Your task to perform on an android device: Search for vegetarian restaurants on Maps Image 0: 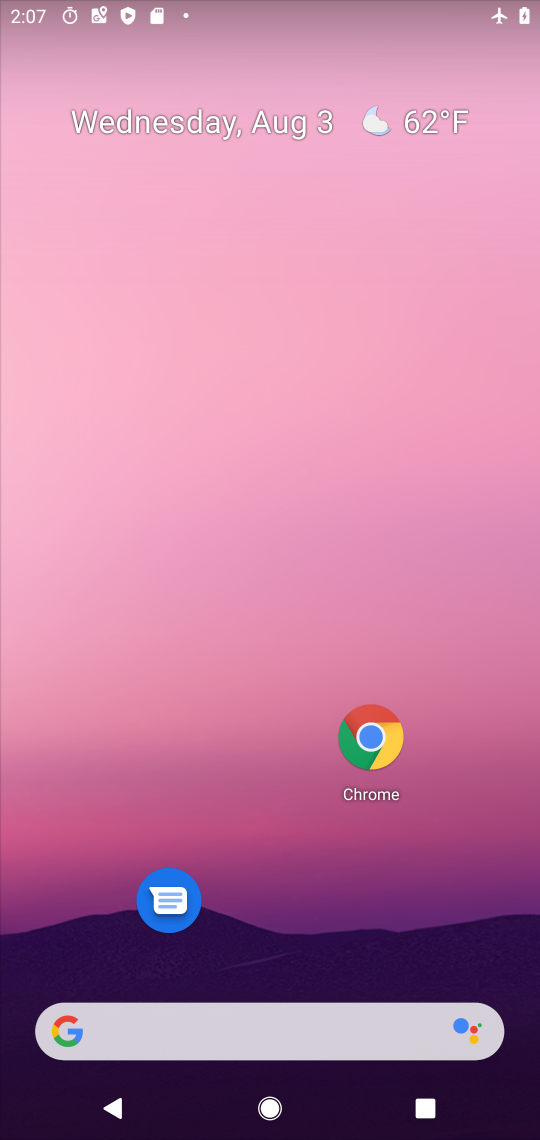
Step 0: drag from (250, 915) to (245, 152)
Your task to perform on an android device: Search for vegetarian restaurants on Maps Image 1: 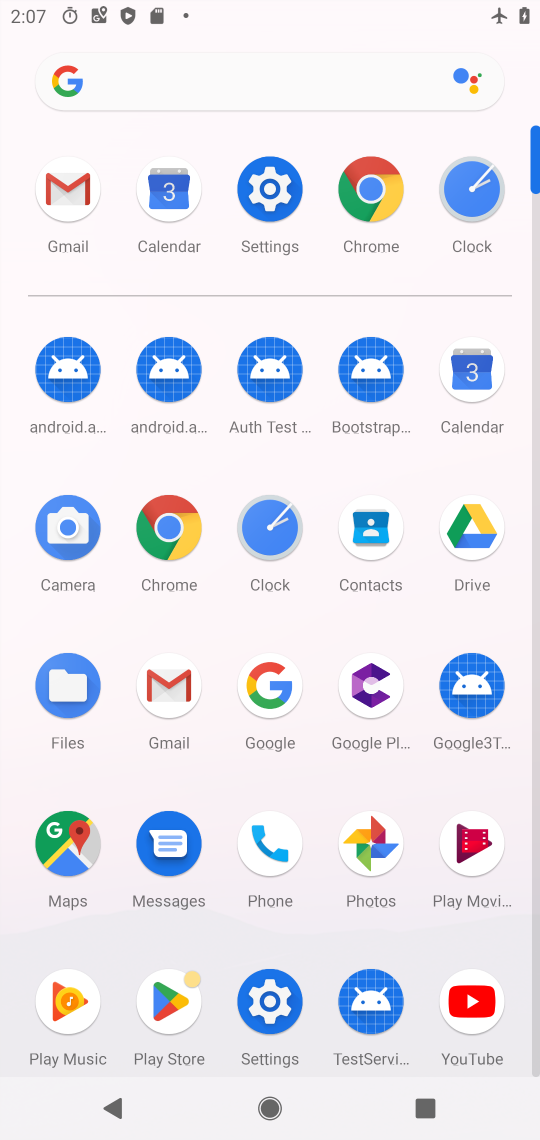
Step 1: click (65, 839)
Your task to perform on an android device: Search for vegetarian restaurants on Maps Image 2: 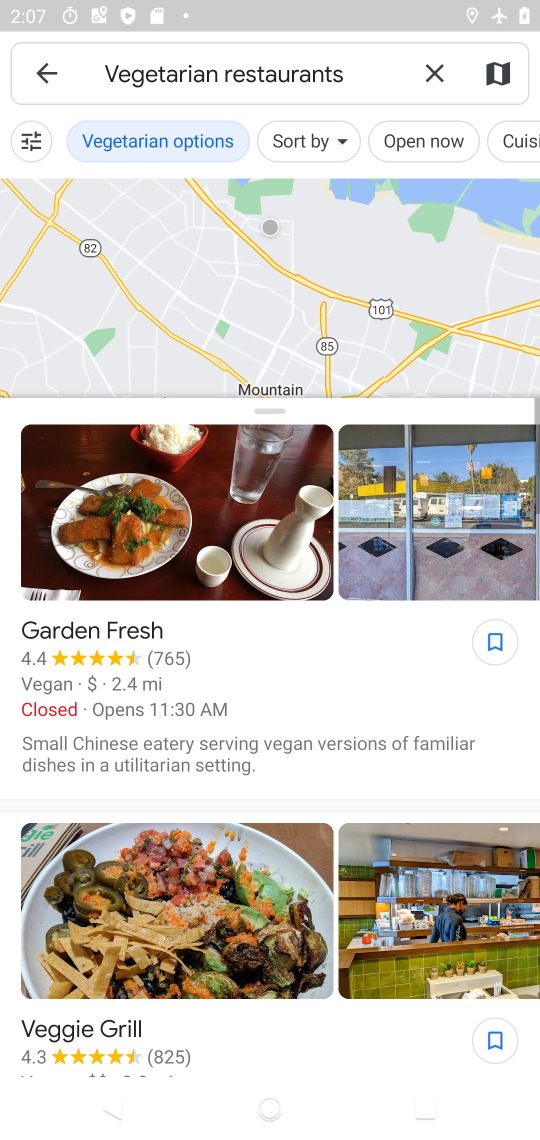
Step 2: click (301, 65)
Your task to perform on an android device: Search for vegetarian restaurants on Maps Image 3: 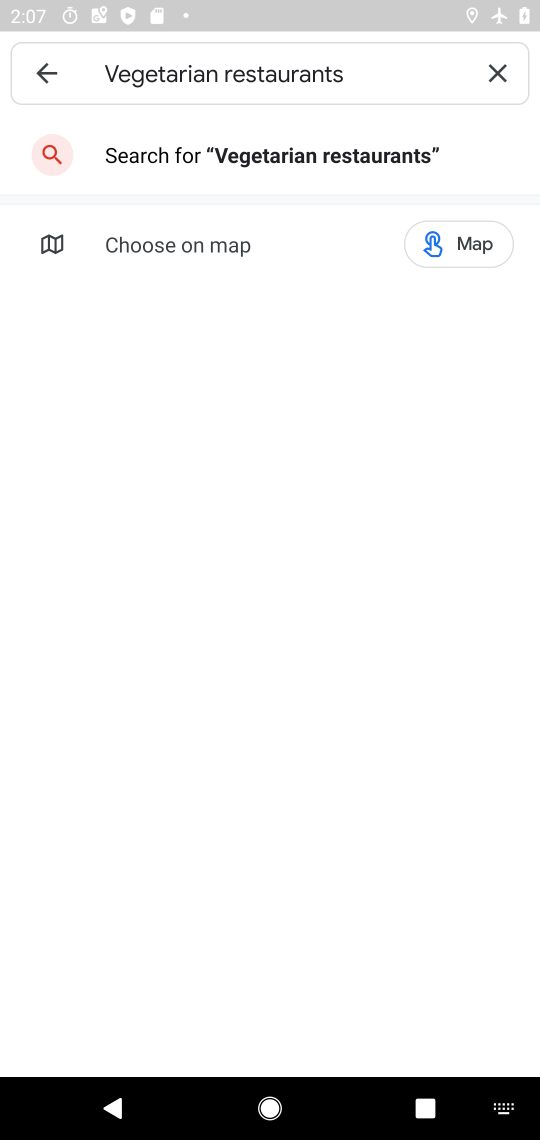
Step 3: click (46, 65)
Your task to perform on an android device: Search for vegetarian restaurants on Maps Image 4: 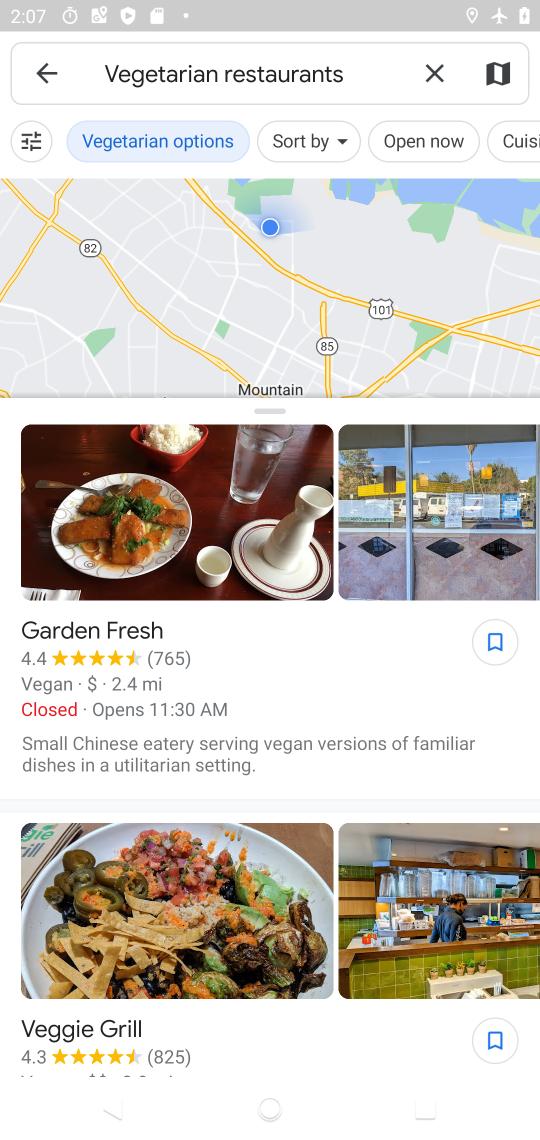
Step 4: task complete